Your task to perform on an android device: Open Google Maps and go to "Timeline" Image 0: 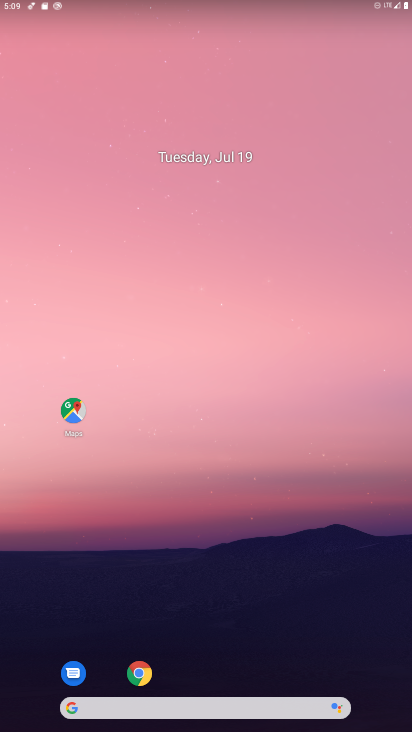
Step 0: press home button
Your task to perform on an android device: Open Google Maps and go to "Timeline" Image 1: 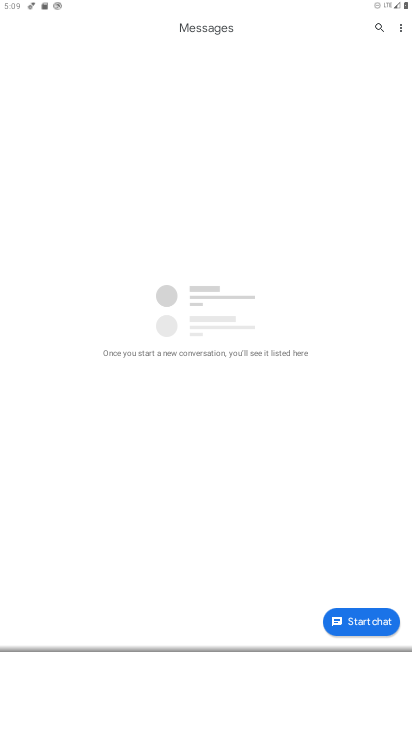
Step 1: click (202, 55)
Your task to perform on an android device: Open Google Maps and go to "Timeline" Image 2: 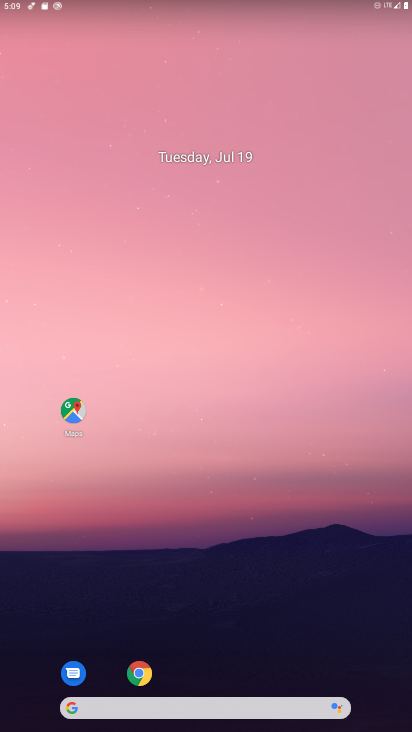
Step 2: click (73, 406)
Your task to perform on an android device: Open Google Maps and go to "Timeline" Image 3: 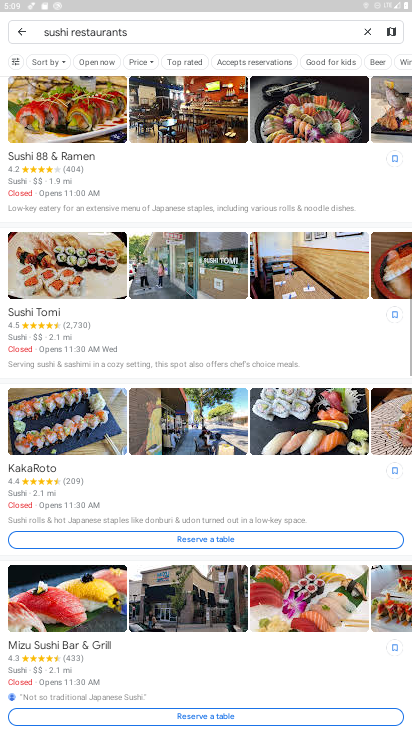
Step 3: click (21, 31)
Your task to perform on an android device: Open Google Maps and go to "Timeline" Image 4: 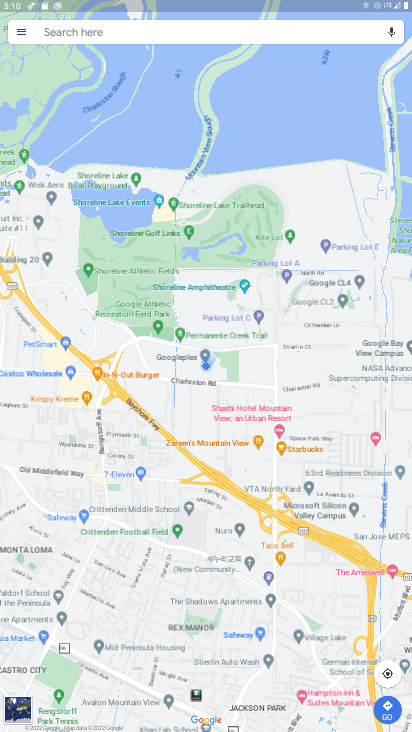
Step 4: click (21, 30)
Your task to perform on an android device: Open Google Maps and go to "Timeline" Image 5: 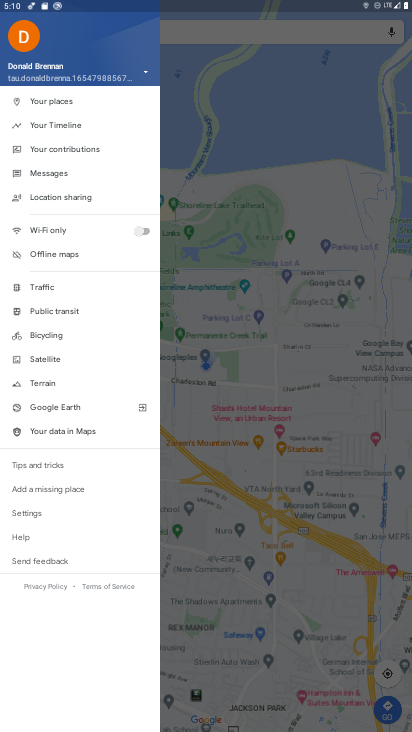
Step 5: click (65, 126)
Your task to perform on an android device: Open Google Maps and go to "Timeline" Image 6: 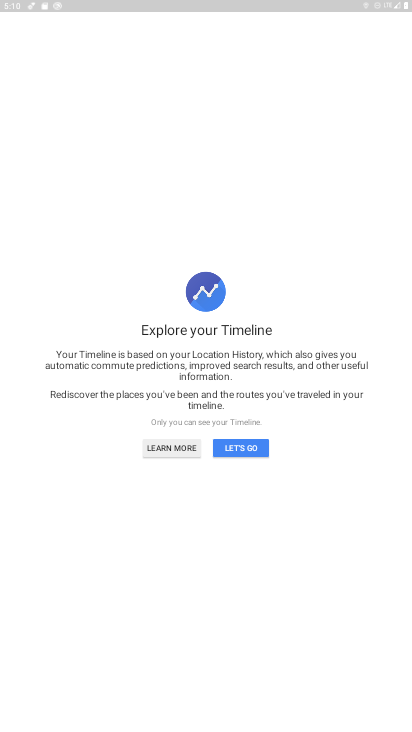
Step 6: click (238, 443)
Your task to perform on an android device: Open Google Maps and go to "Timeline" Image 7: 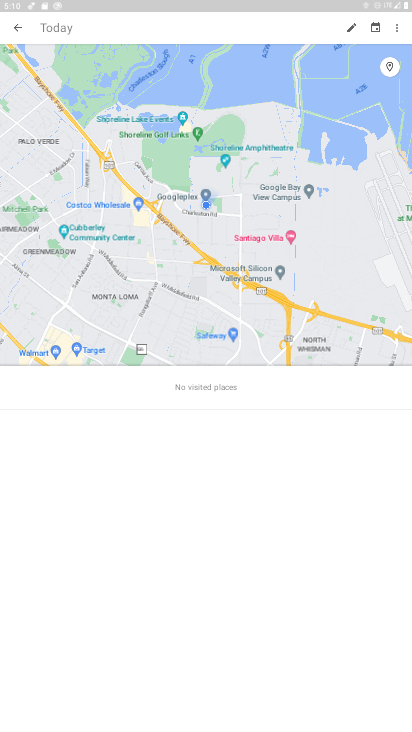
Step 7: task complete